Your task to perform on an android device: Go to Android settings Image 0: 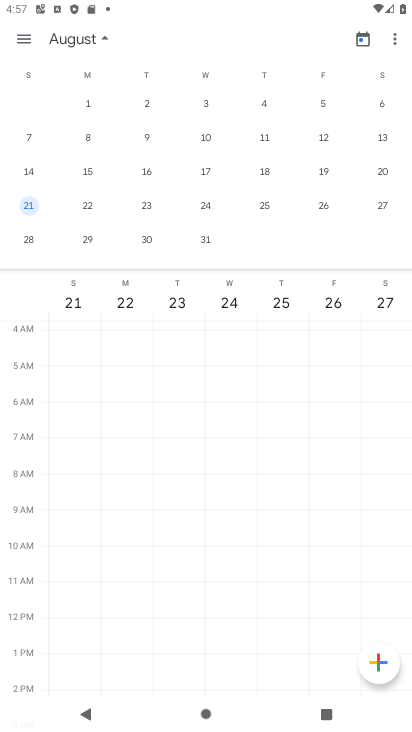
Step 0: press home button
Your task to perform on an android device: Go to Android settings Image 1: 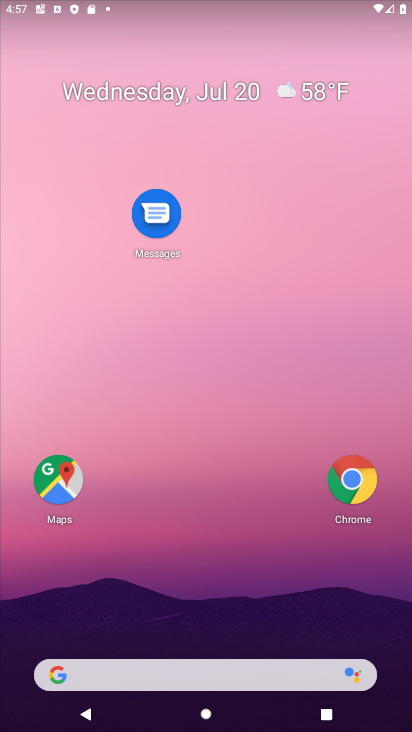
Step 1: drag from (174, 463) to (195, 220)
Your task to perform on an android device: Go to Android settings Image 2: 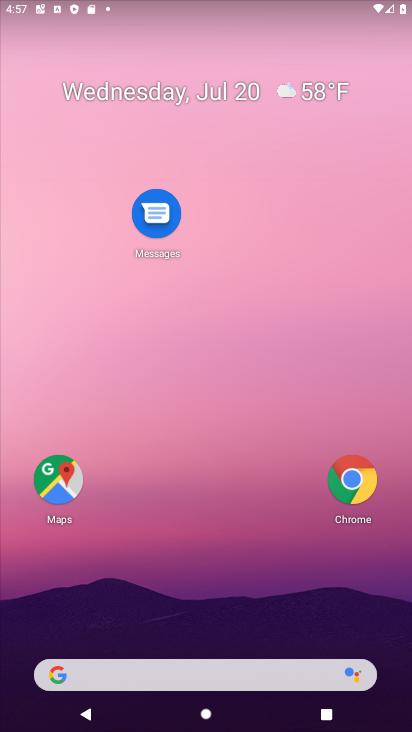
Step 2: drag from (194, 572) to (240, 98)
Your task to perform on an android device: Go to Android settings Image 3: 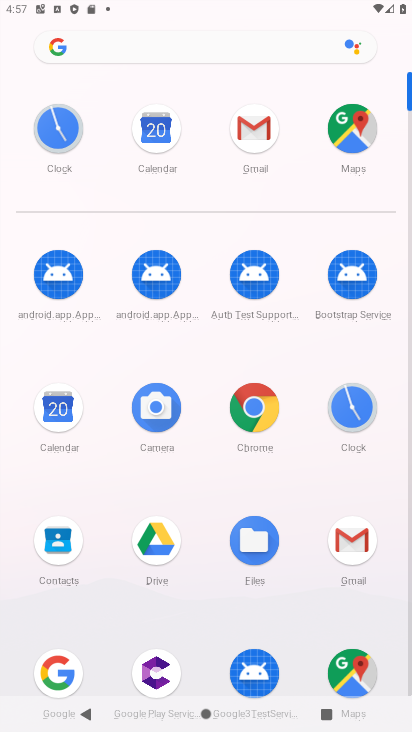
Step 3: drag from (277, 430) to (274, 98)
Your task to perform on an android device: Go to Android settings Image 4: 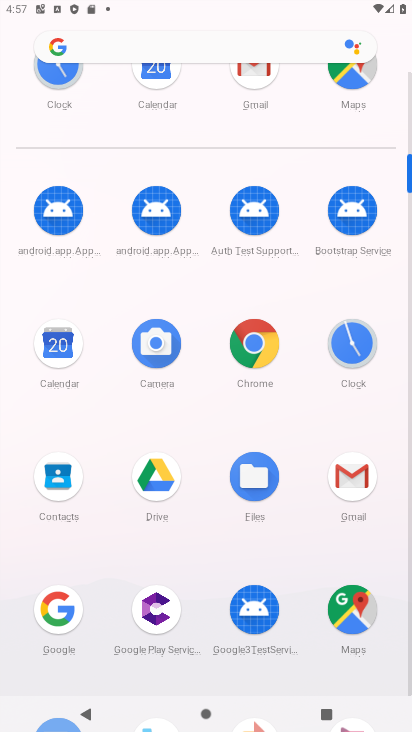
Step 4: drag from (247, 329) to (254, 209)
Your task to perform on an android device: Go to Android settings Image 5: 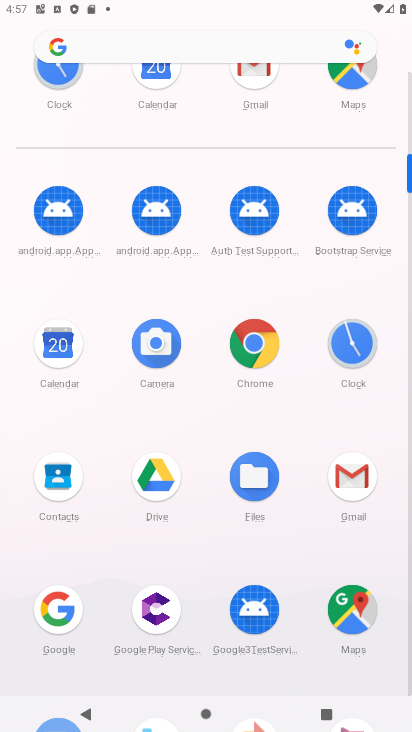
Step 5: drag from (204, 555) to (244, 242)
Your task to perform on an android device: Go to Android settings Image 6: 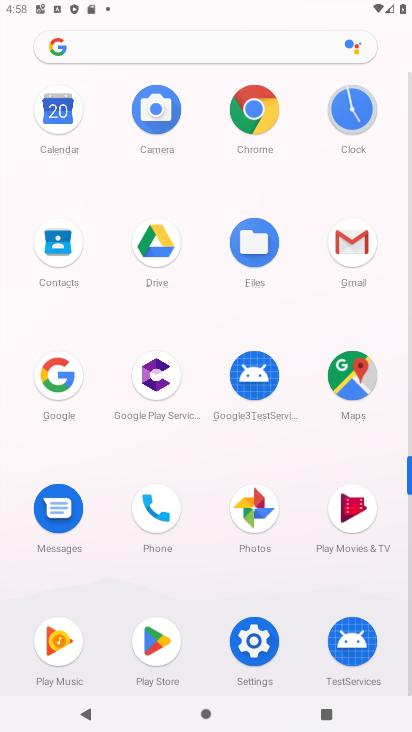
Step 6: click (265, 650)
Your task to perform on an android device: Go to Android settings Image 7: 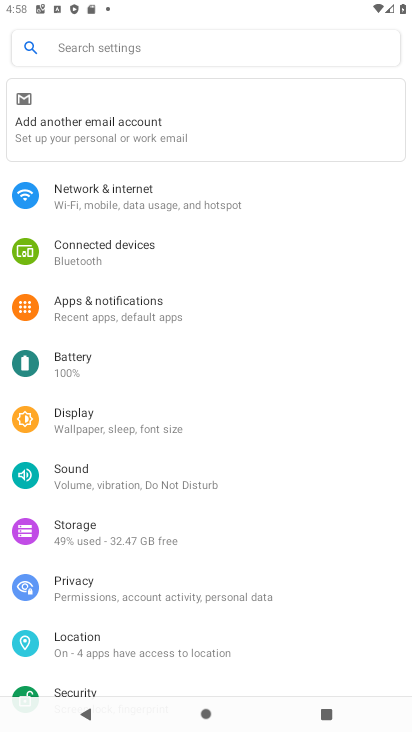
Step 7: drag from (263, 622) to (246, 136)
Your task to perform on an android device: Go to Android settings Image 8: 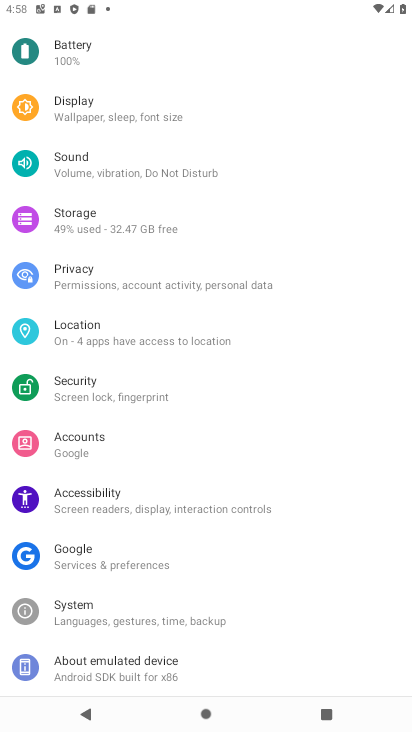
Step 8: click (132, 673)
Your task to perform on an android device: Go to Android settings Image 9: 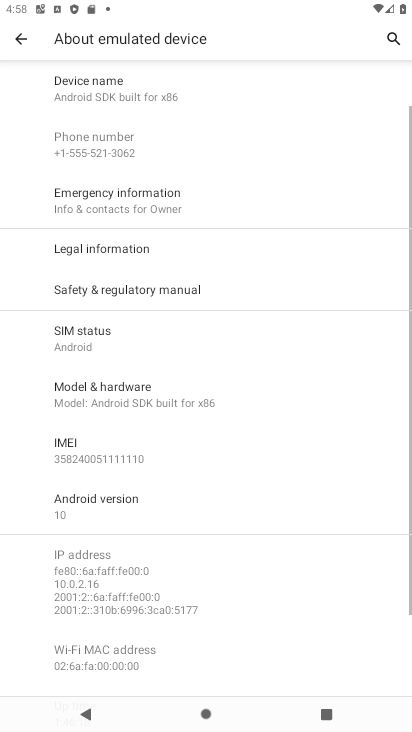
Step 9: click (89, 518)
Your task to perform on an android device: Go to Android settings Image 10: 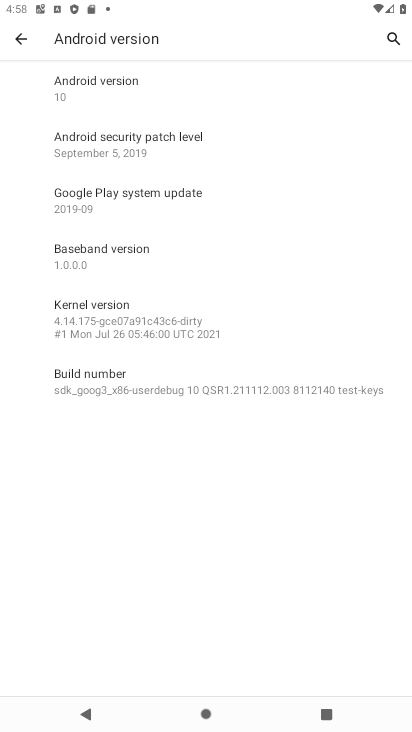
Step 10: task complete